Your task to perform on an android device: Open Chrome and go to settings Image 0: 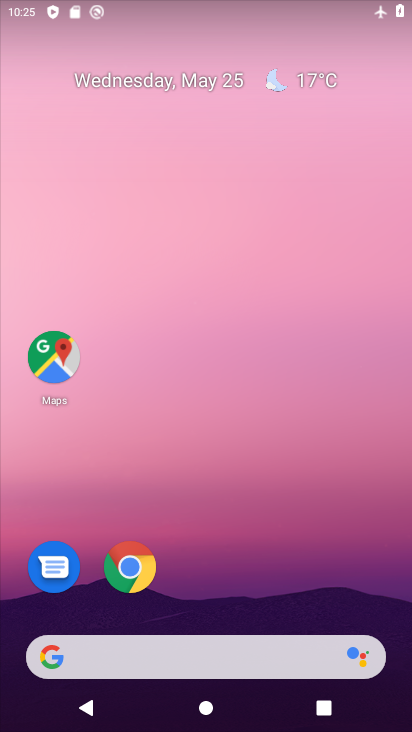
Step 0: drag from (361, 609) to (326, 148)
Your task to perform on an android device: Open Chrome and go to settings Image 1: 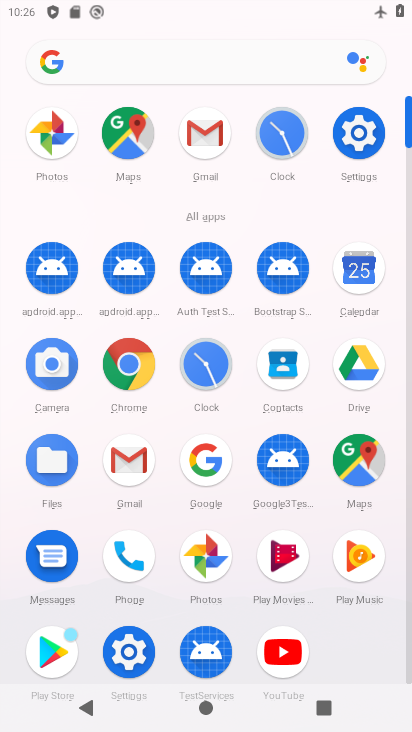
Step 1: click (125, 346)
Your task to perform on an android device: Open Chrome and go to settings Image 2: 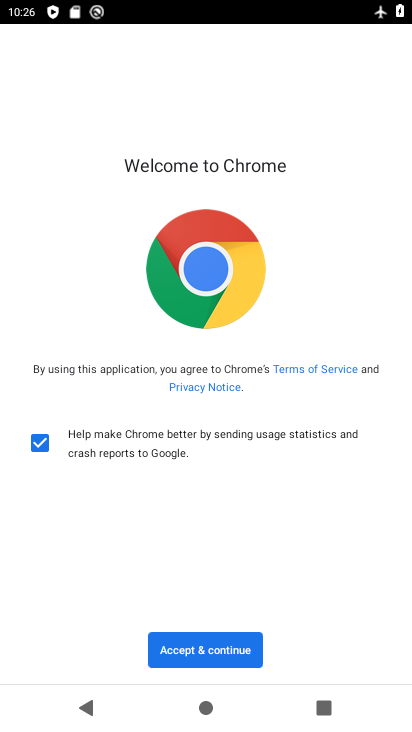
Step 2: click (243, 649)
Your task to perform on an android device: Open Chrome and go to settings Image 3: 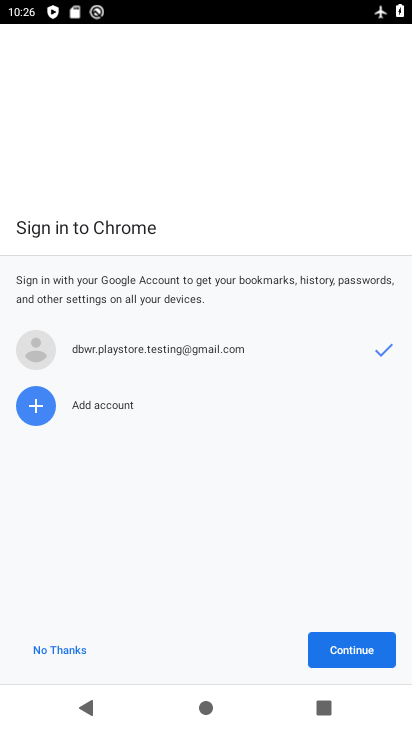
Step 3: click (351, 646)
Your task to perform on an android device: Open Chrome and go to settings Image 4: 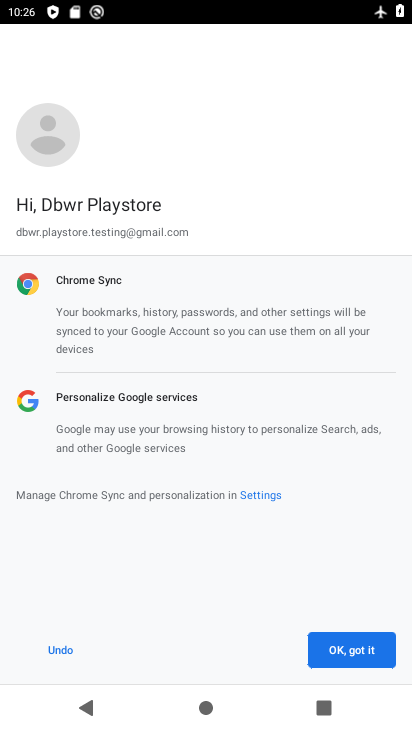
Step 4: click (351, 646)
Your task to perform on an android device: Open Chrome and go to settings Image 5: 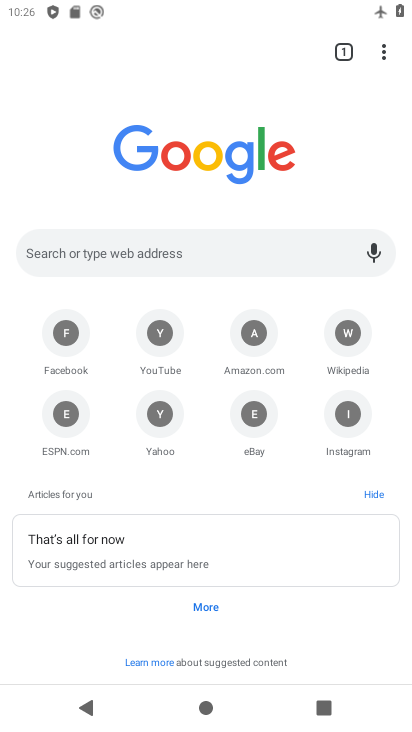
Step 5: click (382, 56)
Your task to perform on an android device: Open Chrome and go to settings Image 6: 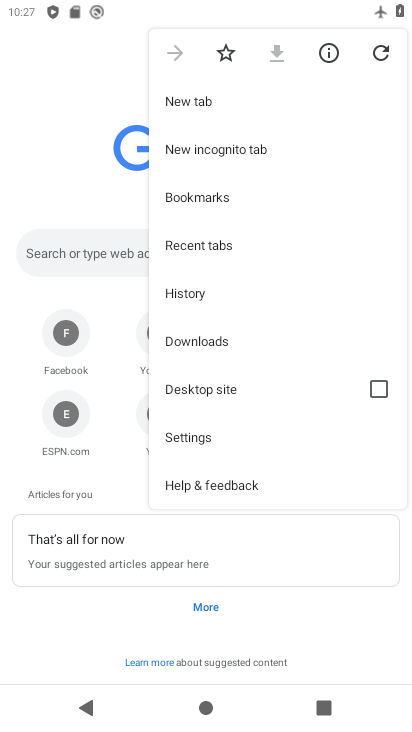
Step 6: click (187, 443)
Your task to perform on an android device: Open Chrome and go to settings Image 7: 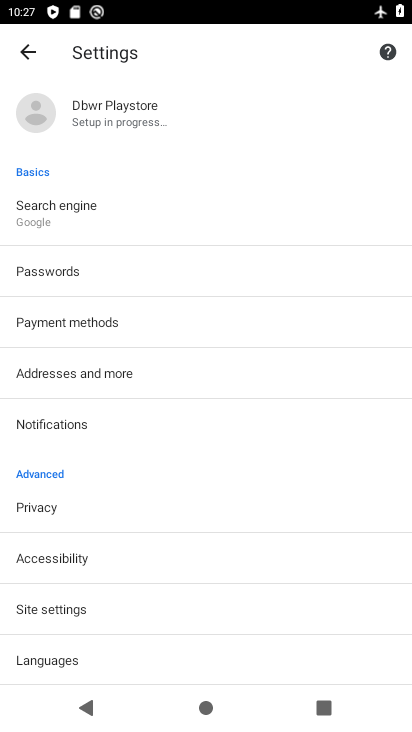
Step 7: task complete